Your task to perform on an android device: see sites visited before in the chrome app Image 0: 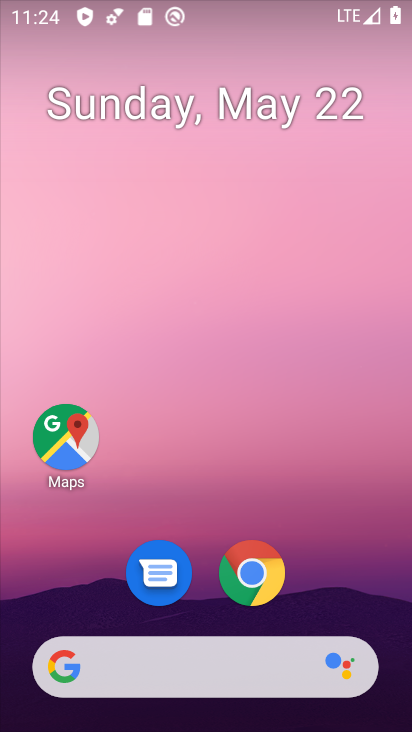
Step 0: drag from (184, 508) to (220, 121)
Your task to perform on an android device: see sites visited before in the chrome app Image 1: 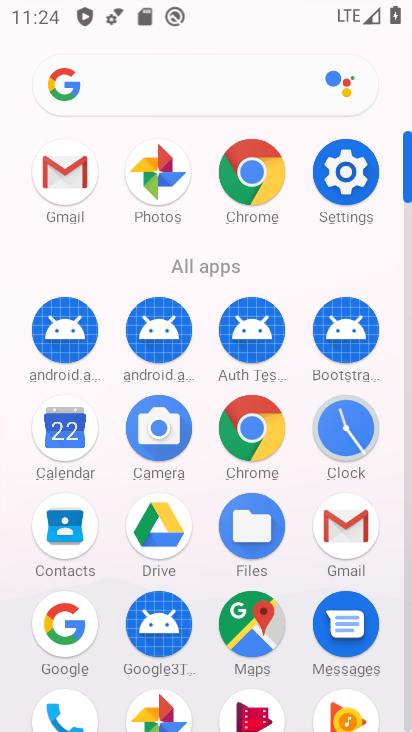
Step 1: click (258, 183)
Your task to perform on an android device: see sites visited before in the chrome app Image 2: 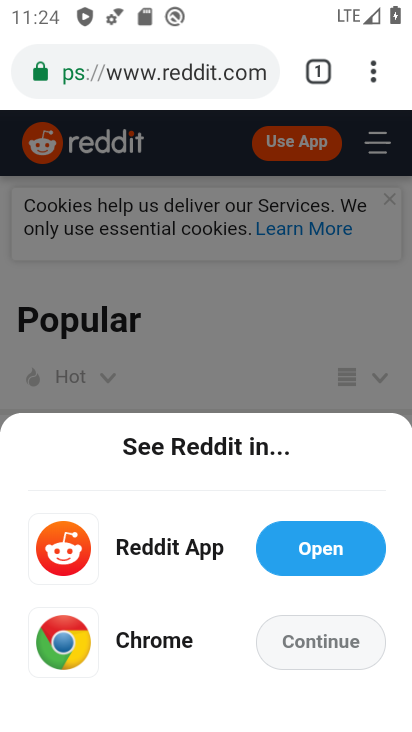
Step 2: click (376, 76)
Your task to perform on an android device: see sites visited before in the chrome app Image 3: 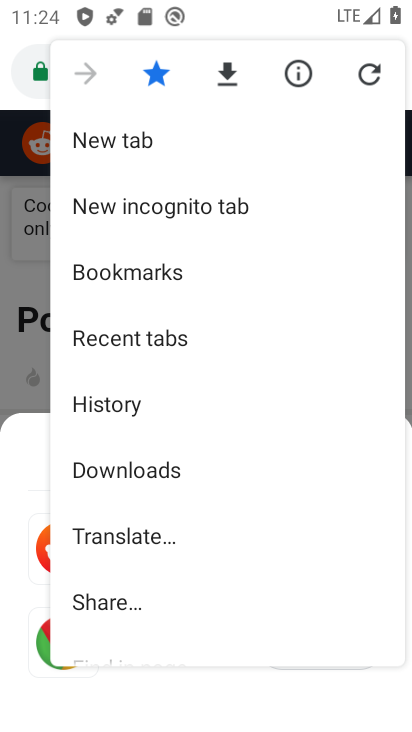
Step 3: click (129, 402)
Your task to perform on an android device: see sites visited before in the chrome app Image 4: 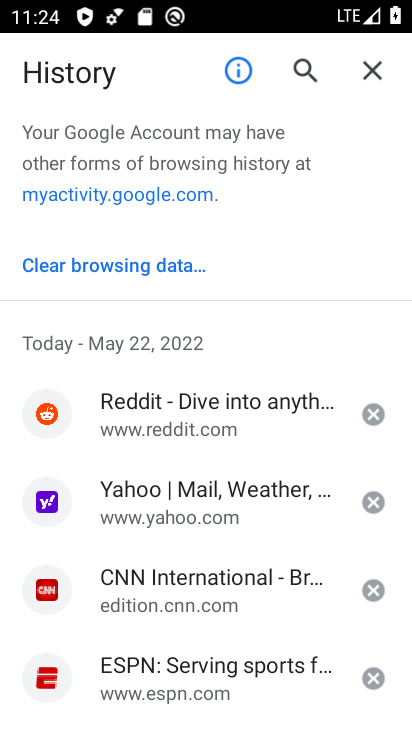
Step 4: drag from (166, 558) to (190, 373)
Your task to perform on an android device: see sites visited before in the chrome app Image 5: 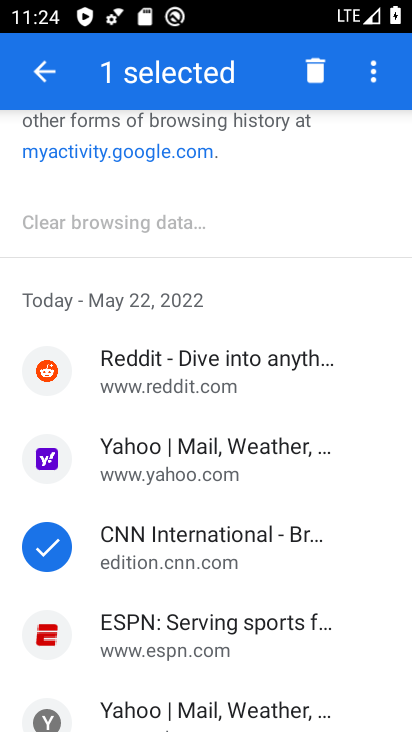
Step 5: click (48, 57)
Your task to perform on an android device: see sites visited before in the chrome app Image 6: 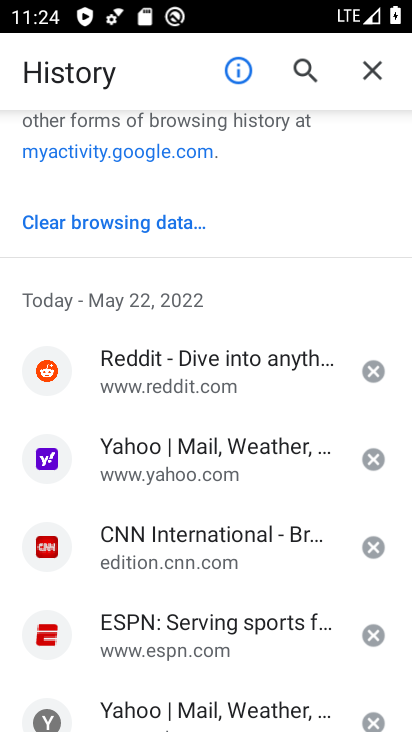
Step 6: task complete